Your task to perform on an android device: Go to eBay Image 0: 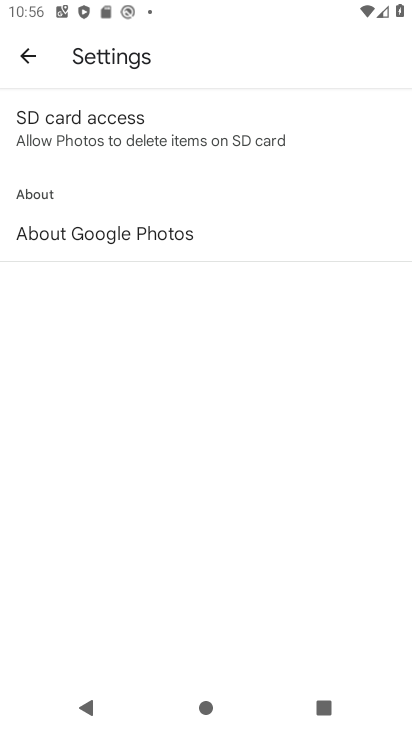
Step 0: press home button
Your task to perform on an android device: Go to eBay Image 1: 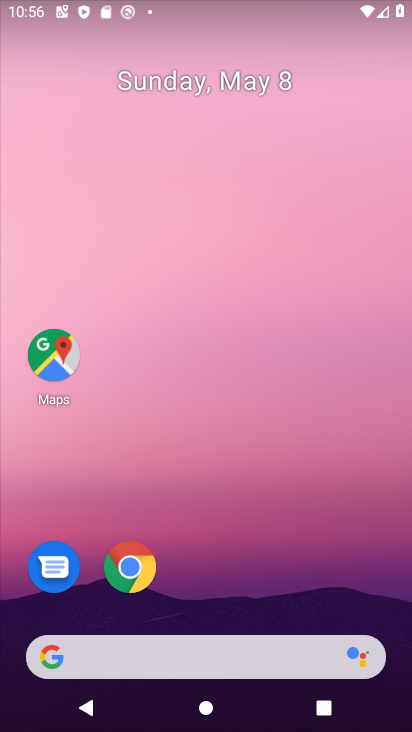
Step 1: click (126, 560)
Your task to perform on an android device: Go to eBay Image 2: 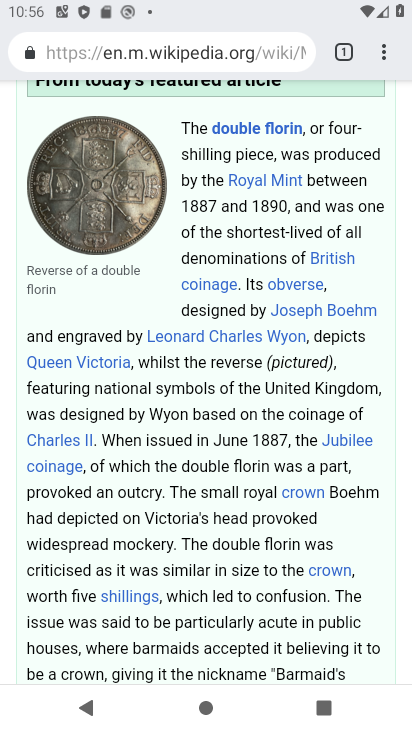
Step 2: press back button
Your task to perform on an android device: Go to eBay Image 3: 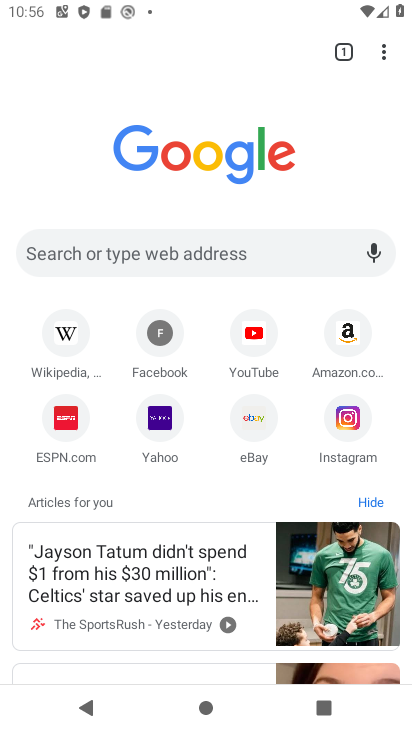
Step 3: click (85, 245)
Your task to perform on an android device: Go to eBay Image 4: 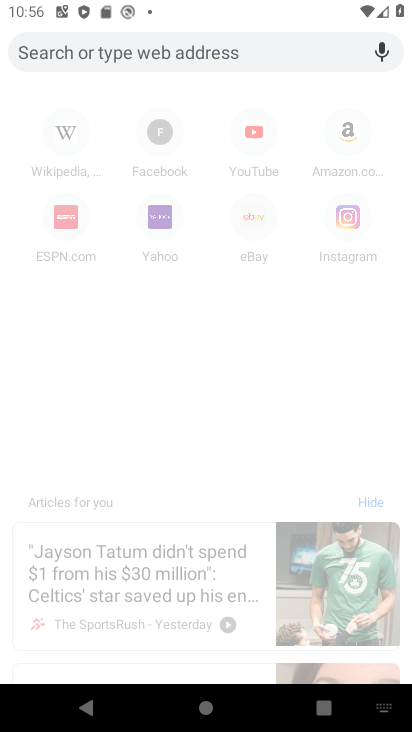
Step 4: type "ebay"
Your task to perform on an android device: Go to eBay Image 5: 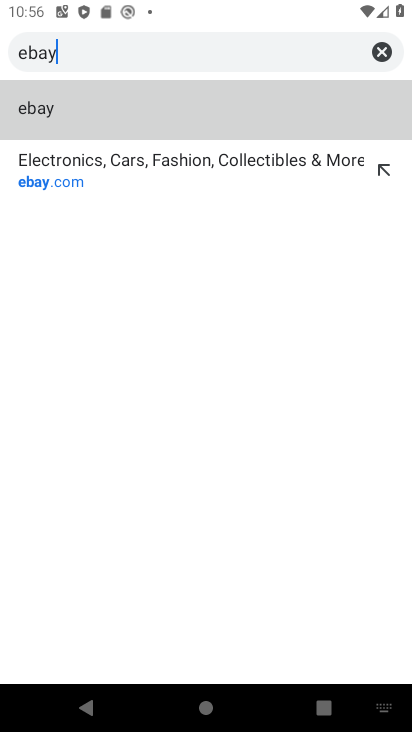
Step 5: click (114, 176)
Your task to perform on an android device: Go to eBay Image 6: 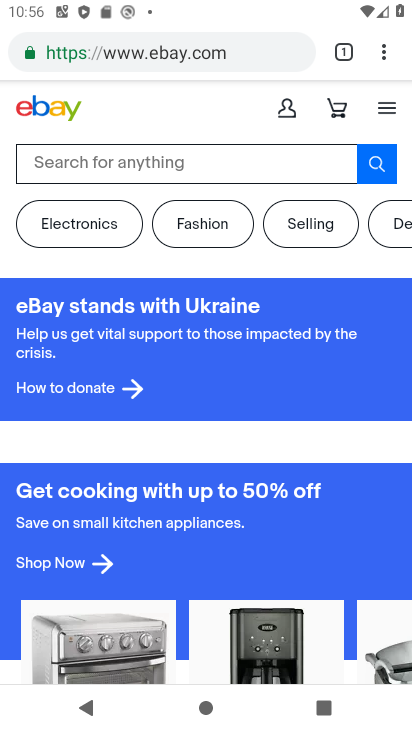
Step 6: task complete